Your task to perform on an android device: Is it going to rain tomorrow? Image 0: 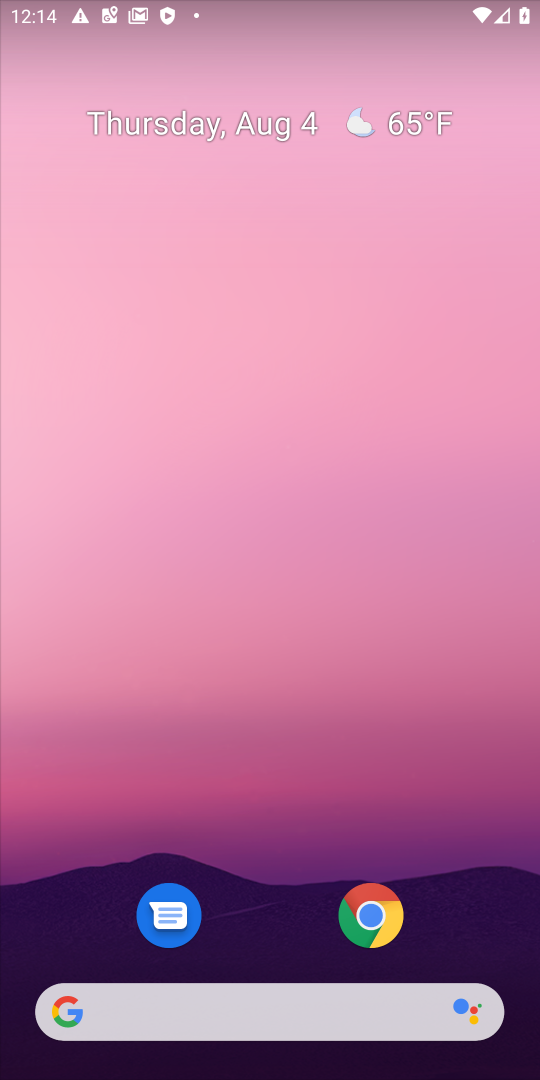
Step 0: drag from (290, 805) to (278, 153)
Your task to perform on an android device: Is it going to rain tomorrow? Image 1: 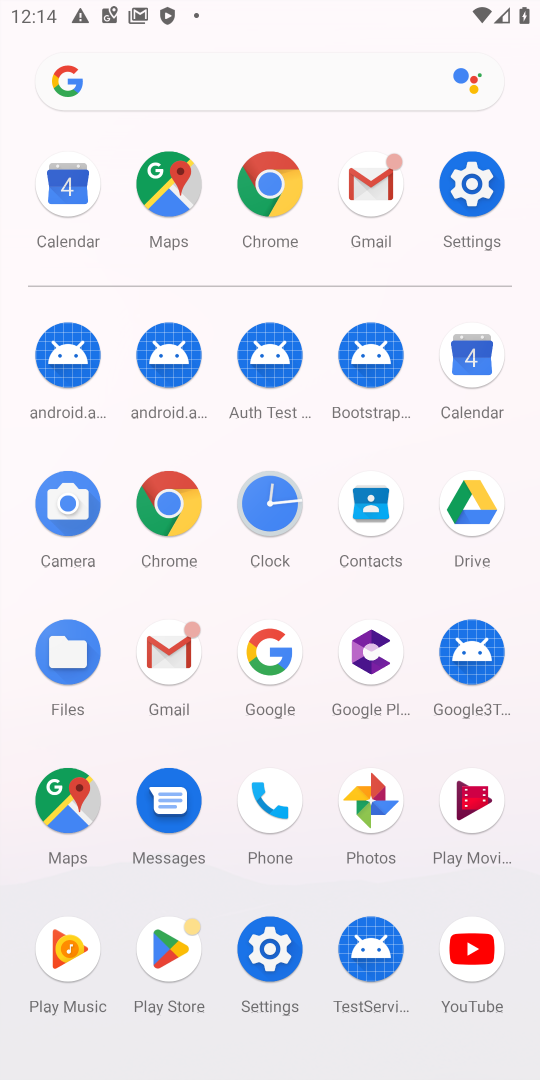
Step 1: click (478, 198)
Your task to perform on an android device: Is it going to rain tomorrow? Image 2: 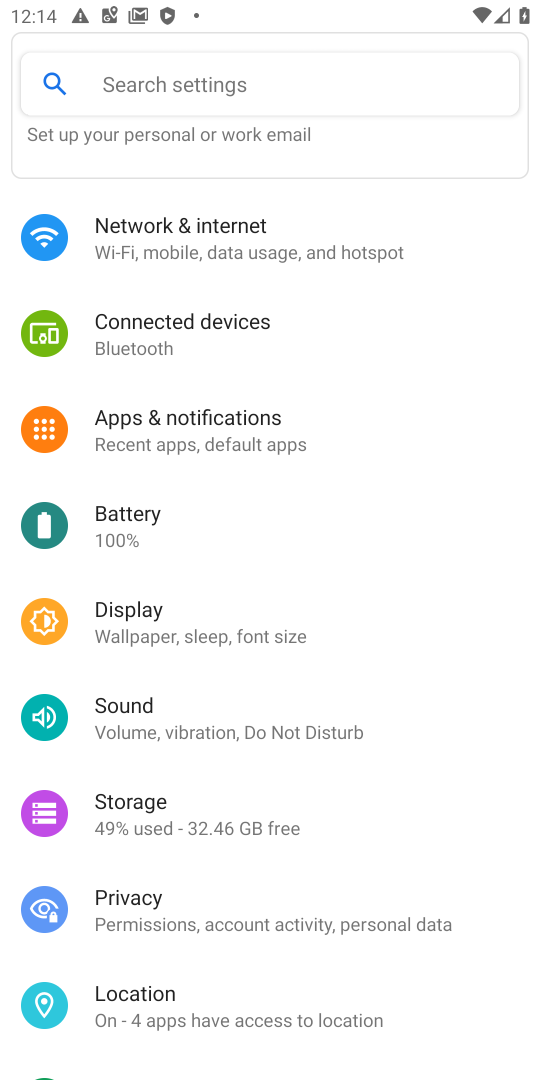
Step 2: drag from (247, 801) to (184, 468)
Your task to perform on an android device: Is it going to rain tomorrow? Image 3: 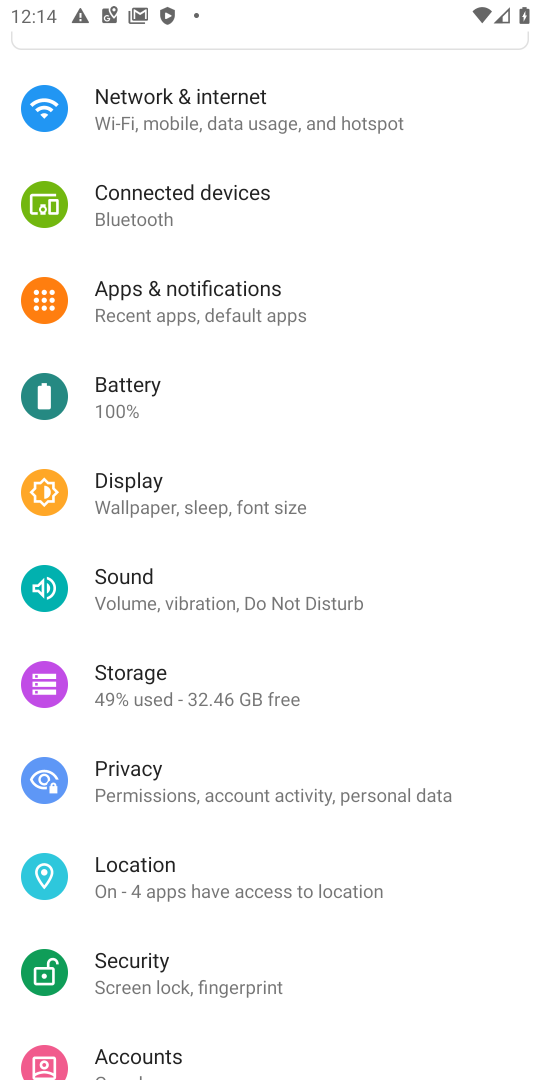
Step 3: press back button
Your task to perform on an android device: Is it going to rain tomorrow? Image 4: 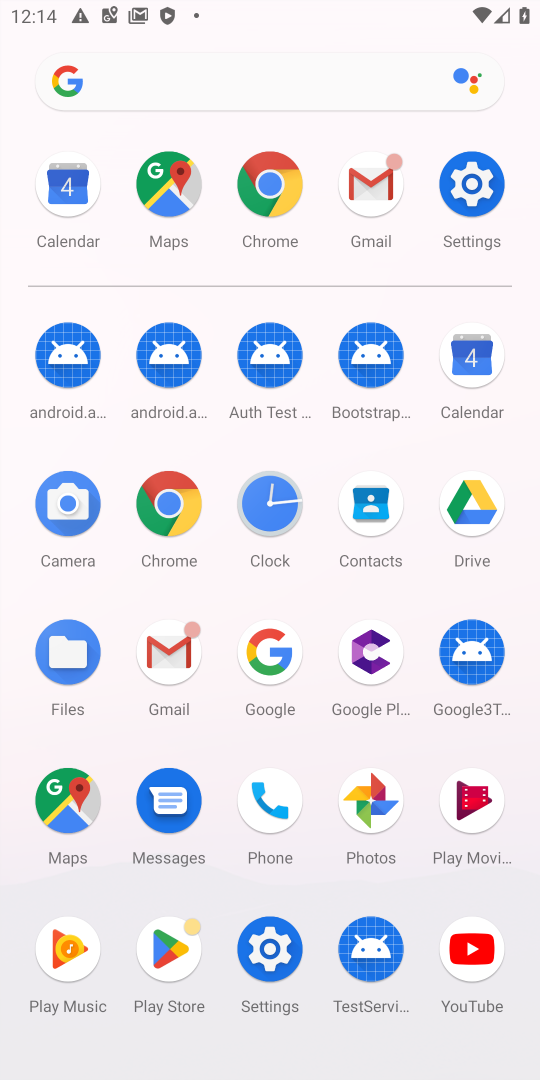
Step 4: click (279, 660)
Your task to perform on an android device: Is it going to rain tomorrow? Image 5: 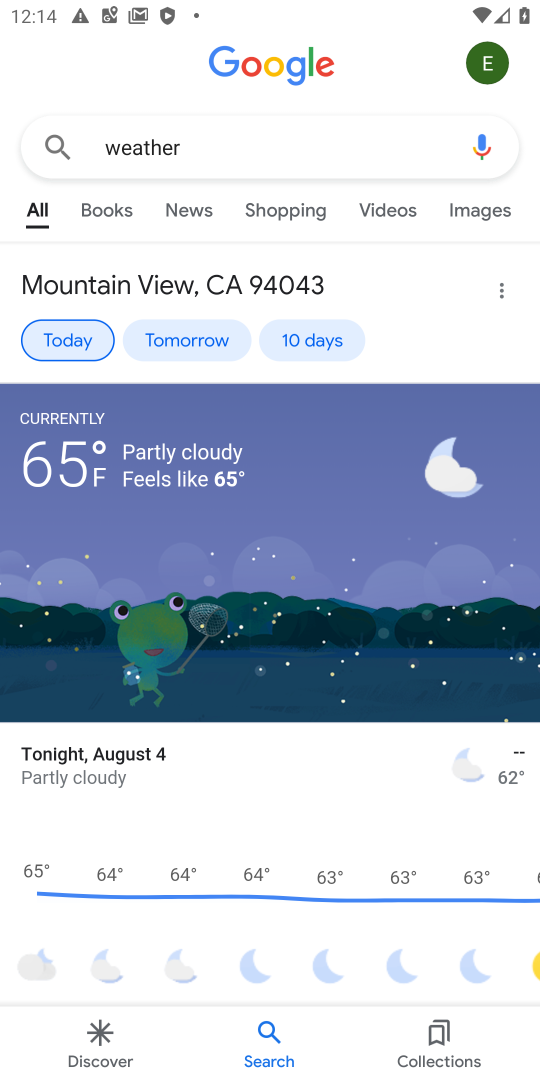
Step 5: click (175, 342)
Your task to perform on an android device: Is it going to rain tomorrow? Image 6: 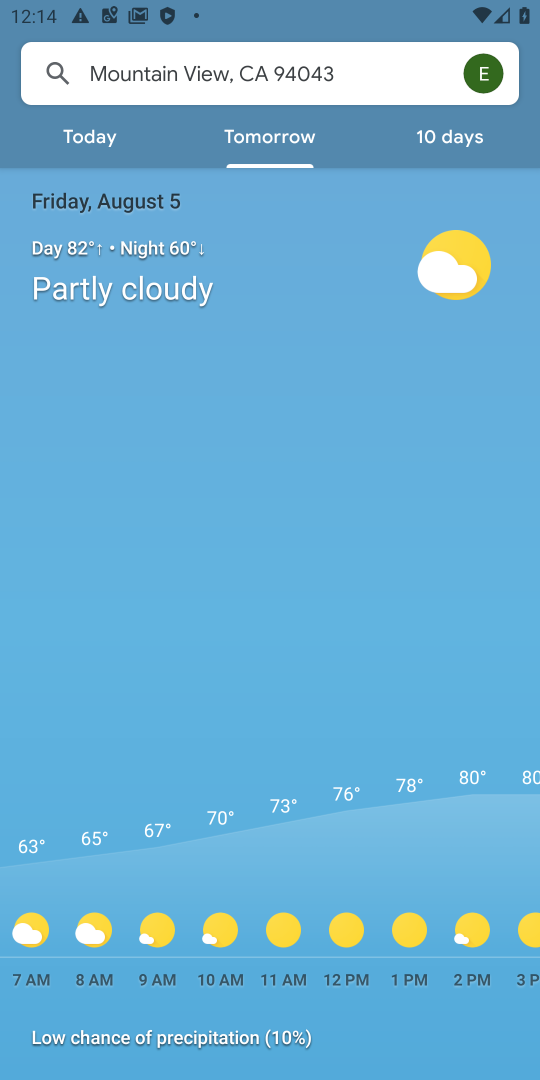
Step 6: task complete